Your task to perform on an android device: change the clock style Image 0: 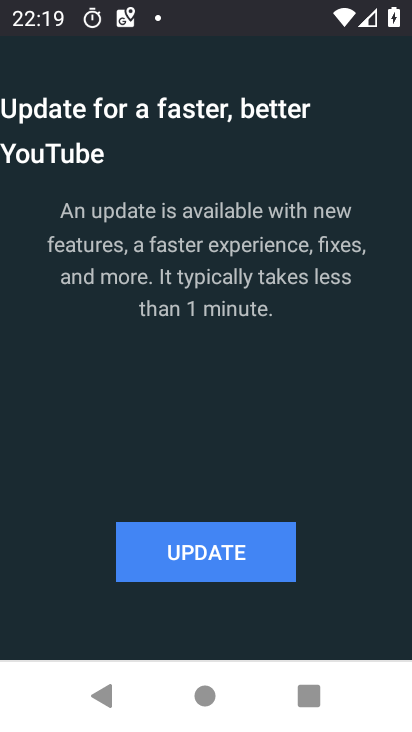
Step 0: press home button
Your task to perform on an android device: change the clock style Image 1: 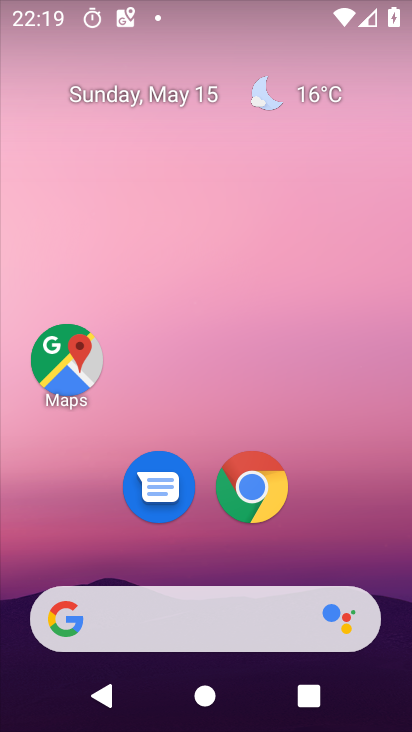
Step 1: drag from (367, 316) to (364, 221)
Your task to perform on an android device: change the clock style Image 2: 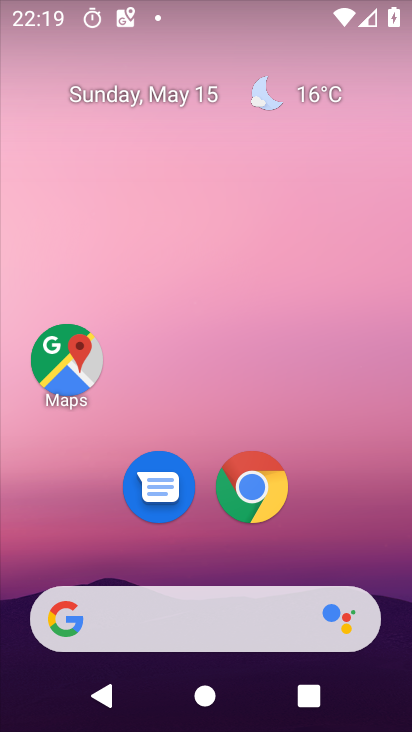
Step 2: drag from (395, 670) to (371, 198)
Your task to perform on an android device: change the clock style Image 3: 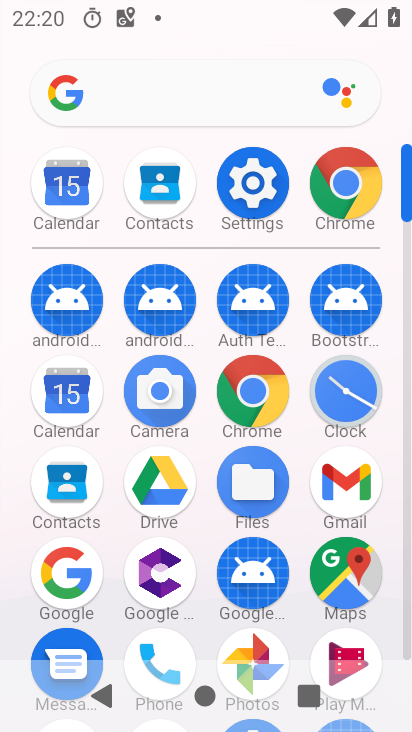
Step 3: click (334, 396)
Your task to perform on an android device: change the clock style Image 4: 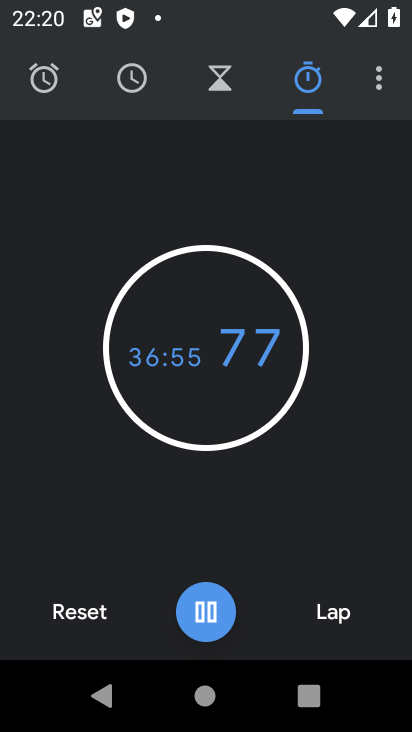
Step 4: click (378, 74)
Your task to perform on an android device: change the clock style Image 5: 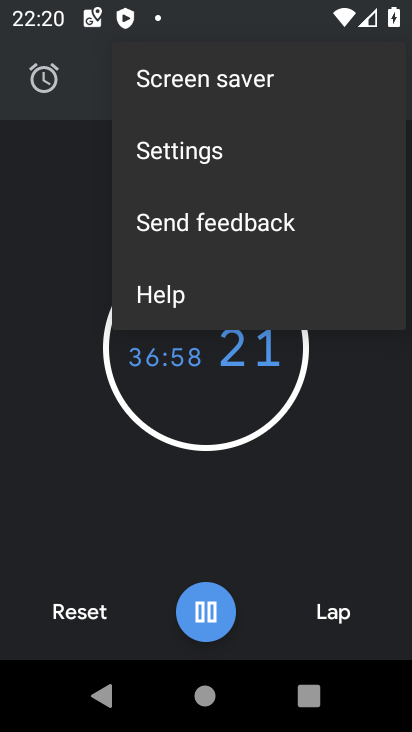
Step 5: click (152, 157)
Your task to perform on an android device: change the clock style Image 6: 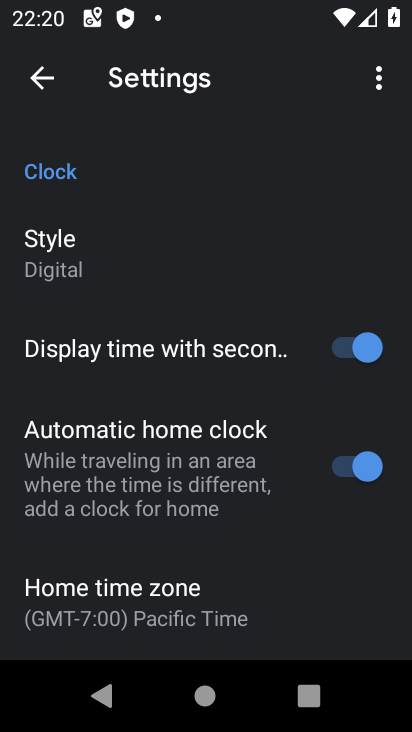
Step 6: click (61, 251)
Your task to perform on an android device: change the clock style Image 7: 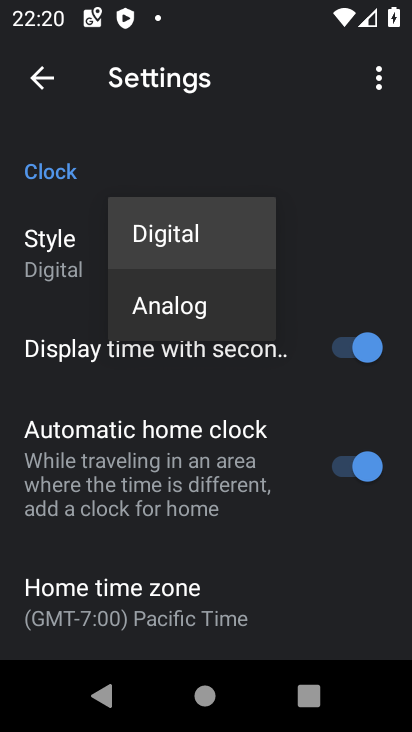
Step 7: click (180, 309)
Your task to perform on an android device: change the clock style Image 8: 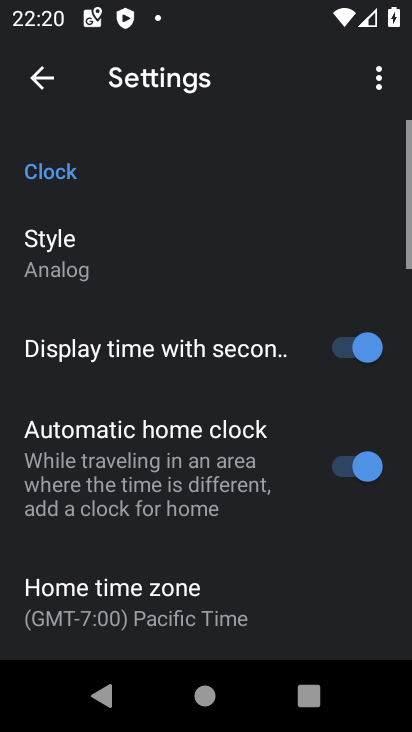
Step 8: task complete